Your task to perform on an android device: change alarm snooze length Image 0: 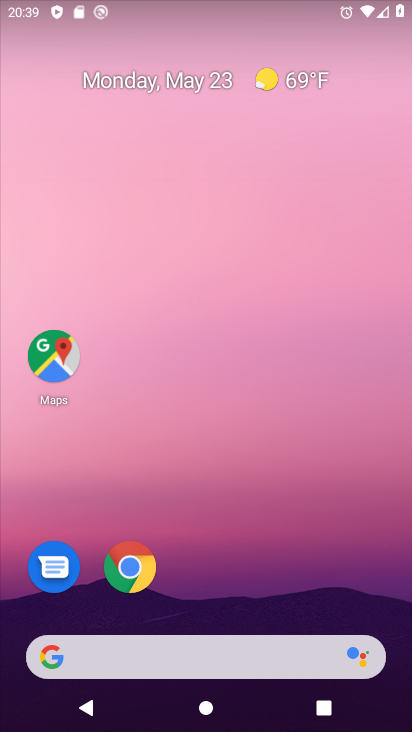
Step 0: drag from (236, 602) to (273, 58)
Your task to perform on an android device: change alarm snooze length Image 1: 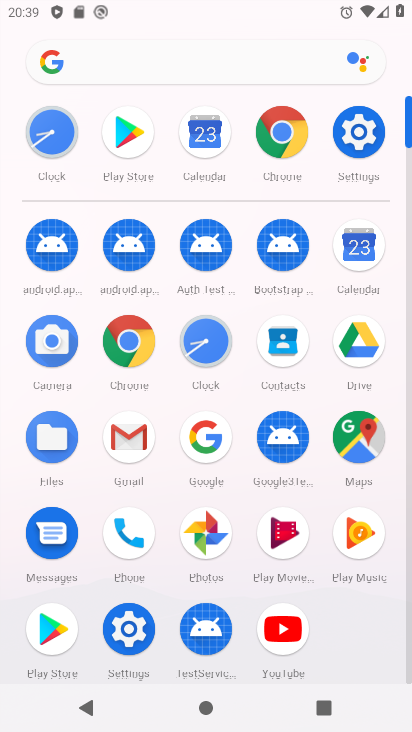
Step 1: click (201, 328)
Your task to perform on an android device: change alarm snooze length Image 2: 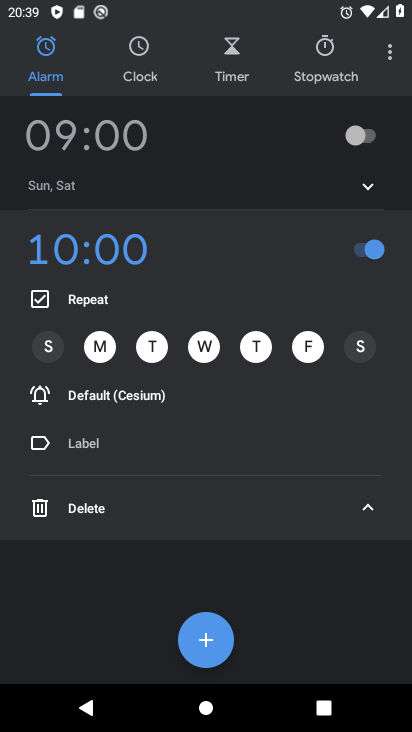
Step 2: click (391, 57)
Your task to perform on an android device: change alarm snooze length Image 3: 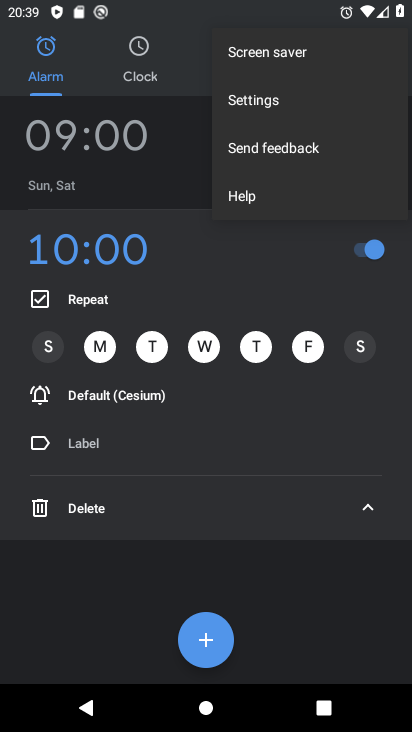
Step 3: click (279, 102)
Your task to perform on an android device: change alarm snooze length Image 4: 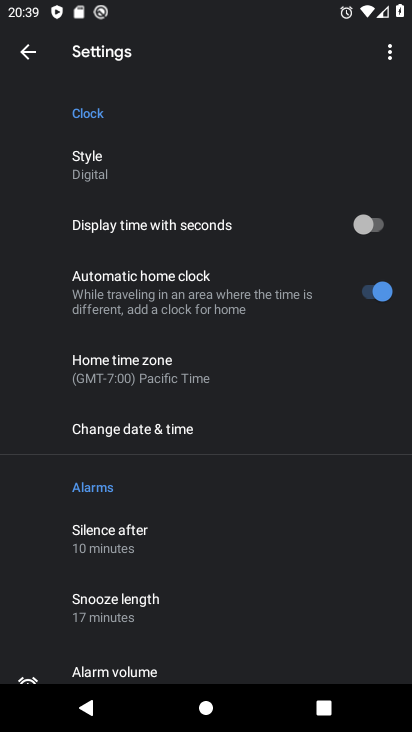
Step 4: drag from (126, 542) to (156, 386)
Your task to perform on an android device: change alarm snooze length Image 5: 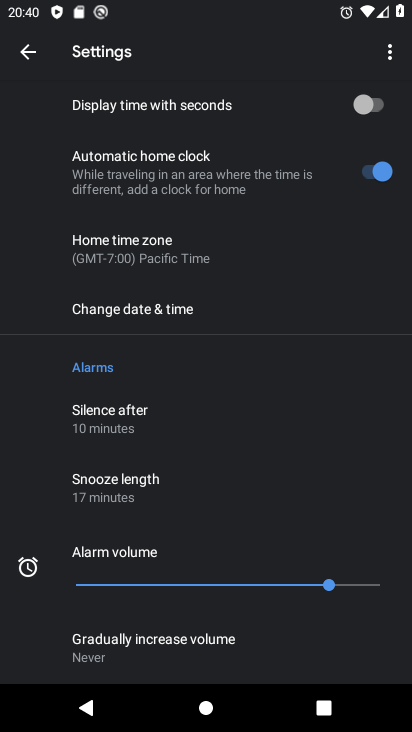
Step 5: click (146, 485)
Your task to perform on an android device: change alarm snooze length Image 6: 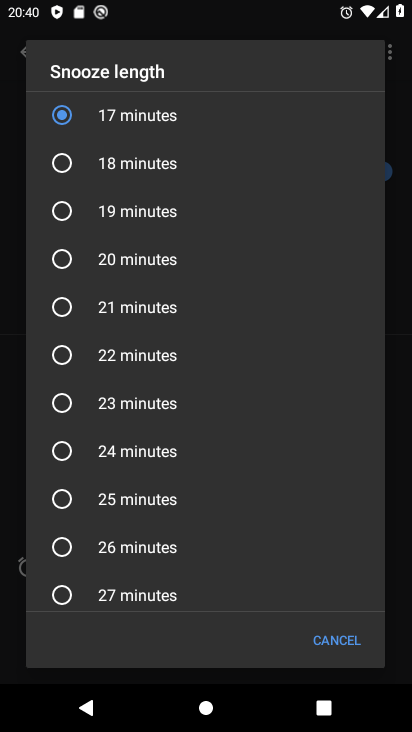
Step 6: click (106, 456)
Your task to perform on an android device: change alarm snooze length Image 7: 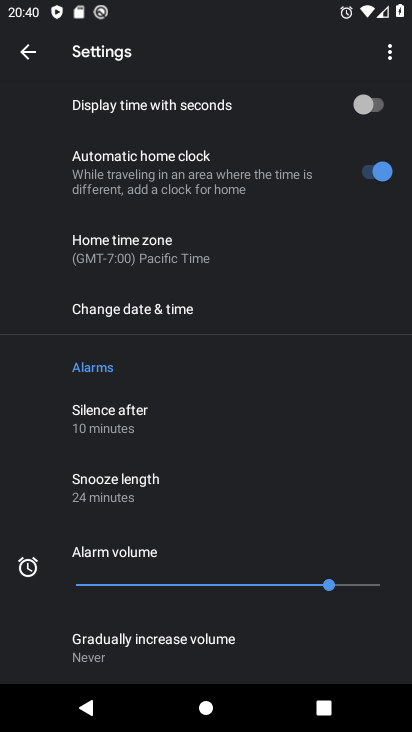
Step 7: task complete